Your task to perform on an android device: read, delete, or share a saved page in the chrome app Image 0: 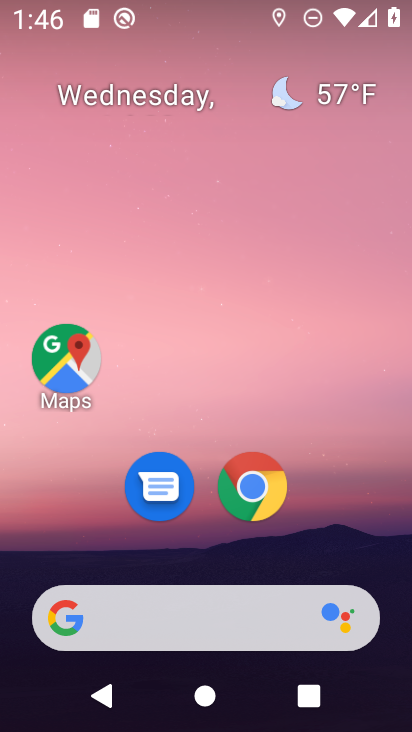
Step 0: drag from (361, 536) to (365, 142)
Your task to perform on an android device: read, delete, or share a saved page in the chrome app Image 1: 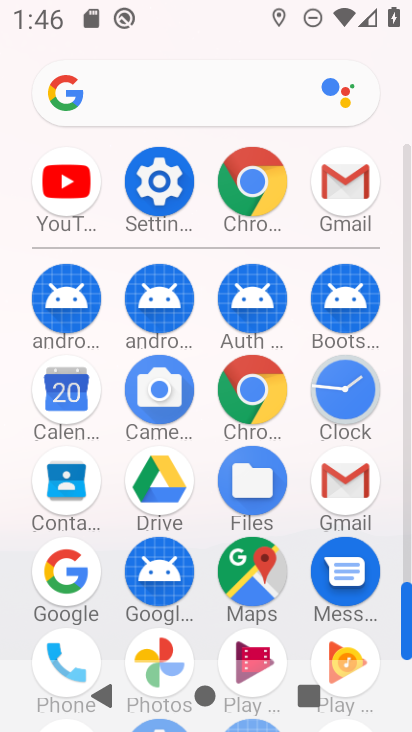
Step 1: click (267, 194)
Your task to perform on an android device: read, delete, or share a saved page in the chrome app Image 2: 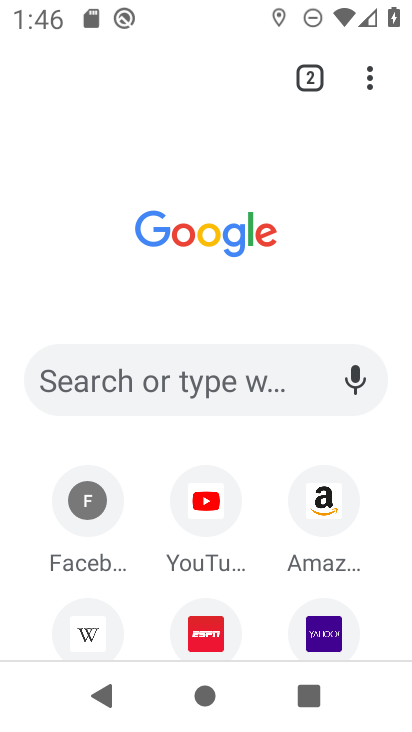
Step 2: click (366, 85)
Your task to perform on an android device: read, delete, or share a saved page in the chrome app Image 3: 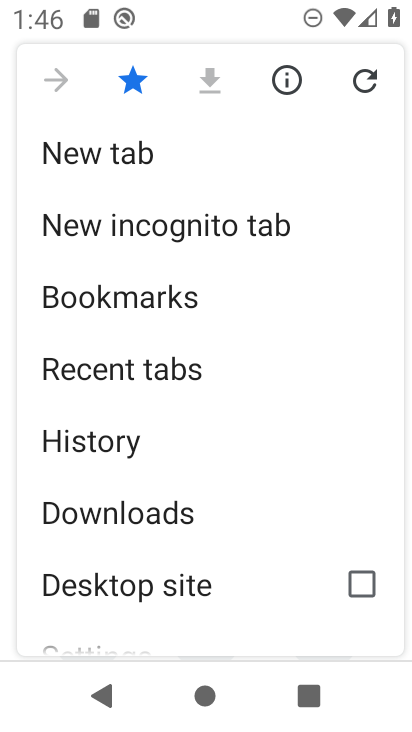
Step 3: drag from (325, 282) to (327, 240)
Your task to perform on an android device: read, delete, or share a saved page in the chrome app Image 4: 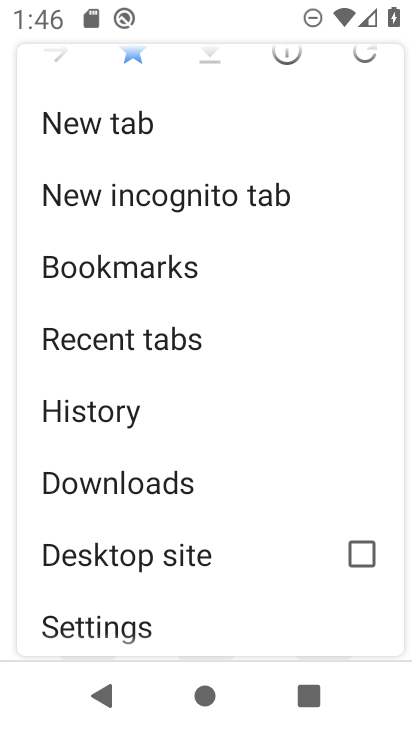
Step 4: drag from (279, 370) to (280, 270)
Your task to perform on an android device: read, delete, or share a saved page in the chrome app Image 5: 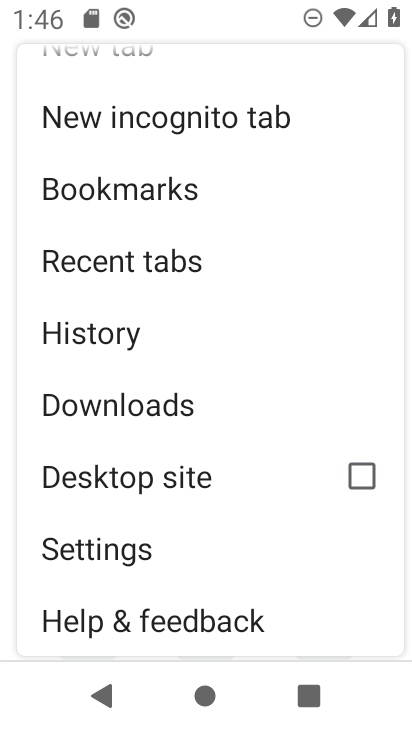
Step 5: drag from (258, 432) to (263, 326)
Your task to perform on an android device: read, delete, or share a saved page in the chrome app Image 6: 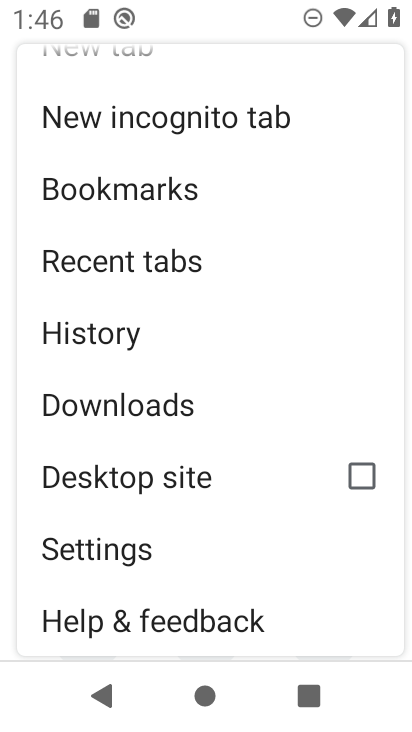
Step 6: click (228, 401)
Your task to perform on an android device: read, delete, or share a saved page in the chrome app Image 7: 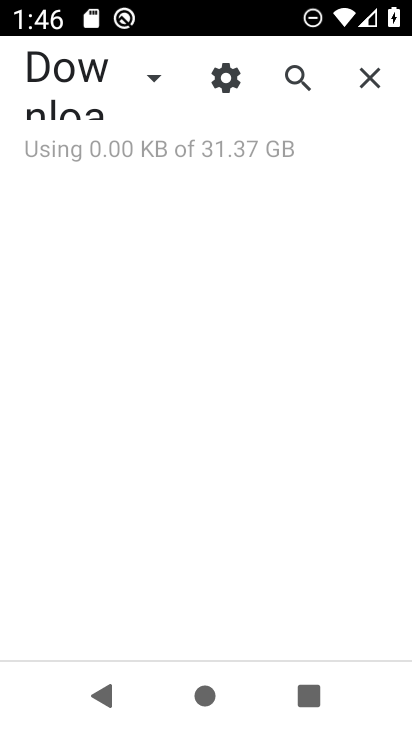
Step 7: click (156, 70)
Your task to perform on an android device: read, delete, or share a saved page in the chrome app Image 8: 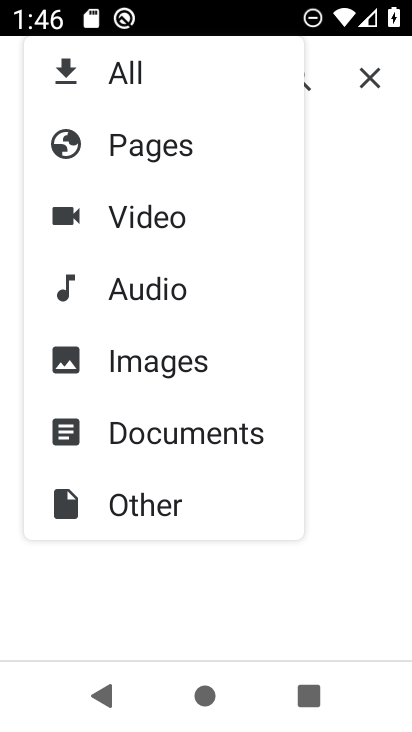
Step 8: click (145, 162)
Your task to perform on an android device: read, delete, or share a saved page in the chrome app Image 9: 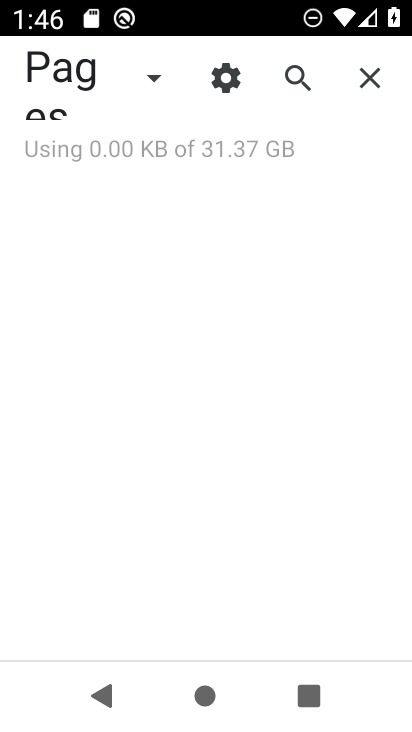
Step 9: task complete